Your task to perform on an android device: change notifications settings Image 0: 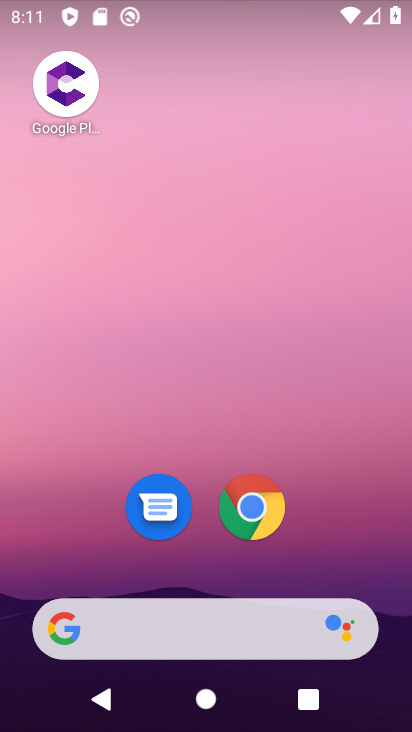
Step 0: drag from (241, 379) to (303, 38)
Your task to perform on an android device: change notifications settings Image 1: 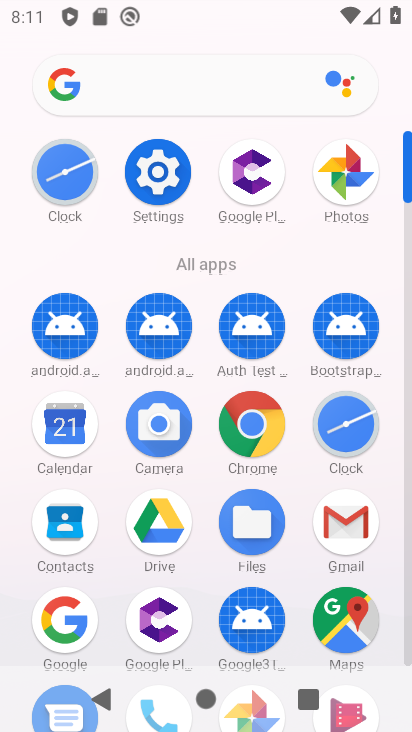
Step 1: click (164, 176)
Your task to perform on an android device: change notifications settings Image 2: 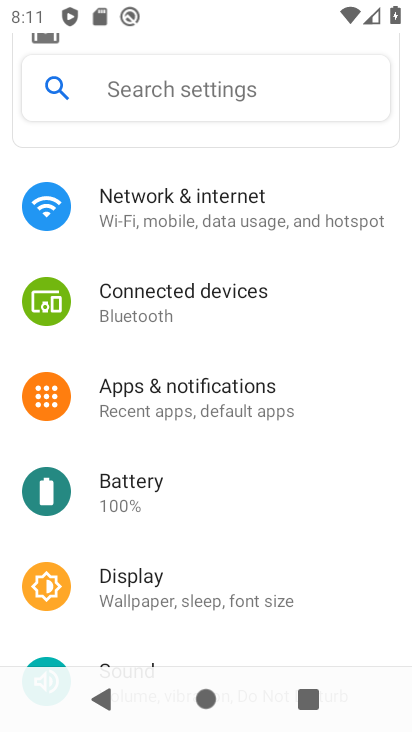
Step 2: click (202, 393)
Your task to perform on an android device: change notifications settings Image 3: 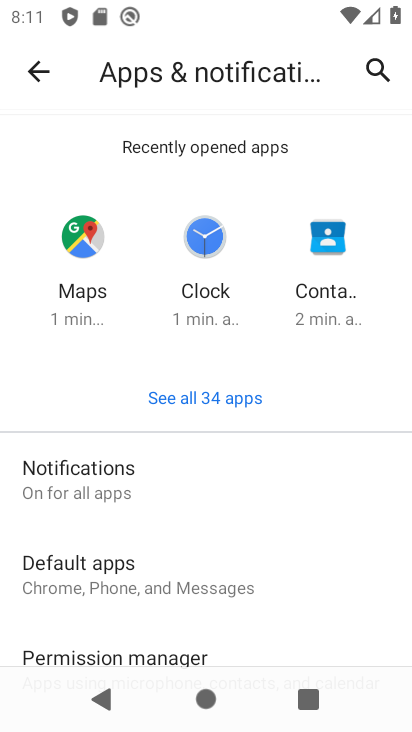
Step 3: drag from (178, 566) to (282, 174)
Your task to perform on an android device: change notifications settings Image 4: 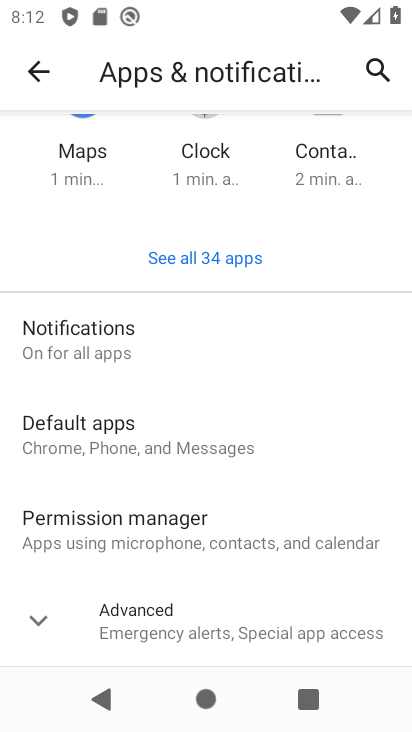
Step 4: click (174, 347)
Your task to perform on an android device: change notifications settings Image 5: 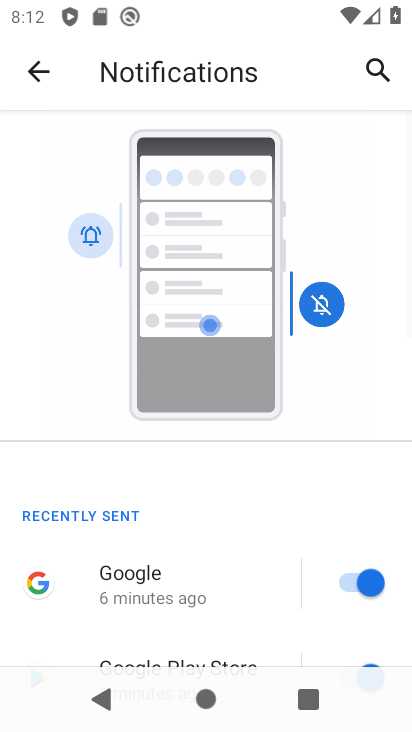
Step 5: drag from (210, 606) to (346, 57)
Your task to perform on an android device: change notifications settings Image 6: 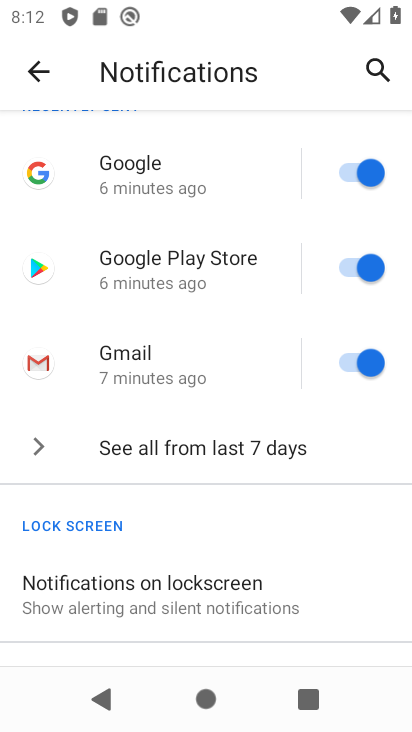
Step 6: drag from (197, 561) to (245, 273)
Your task to perform on an android device: change notifications settings Image 7: 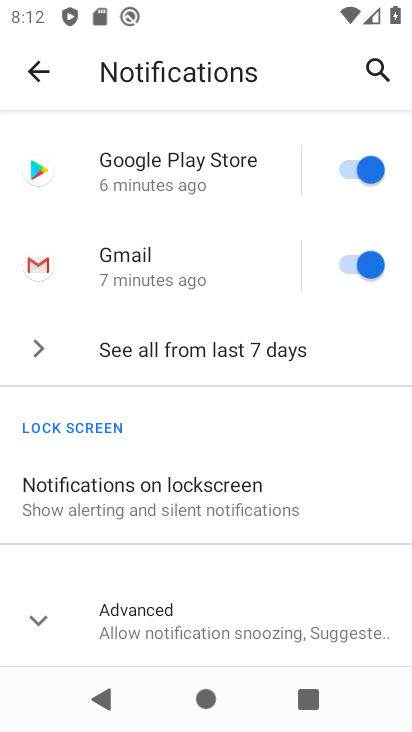
Step 7: click (153, 644)
Your task to perform on an android device: change notifications settings Image 8: 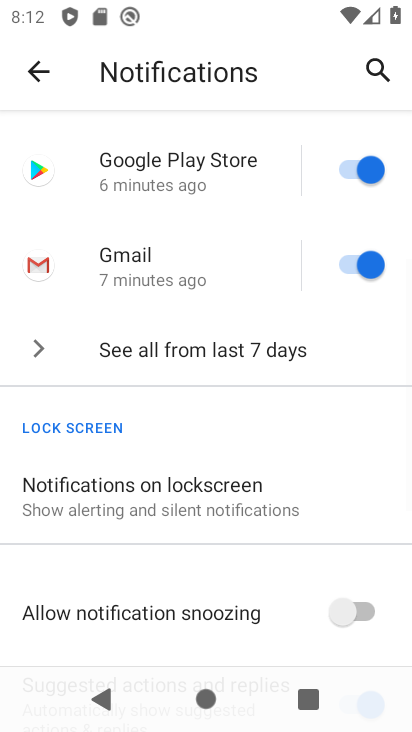
Step 8: click (350, 609)
Your task to perform on an android device: change notifications settings Image 9: 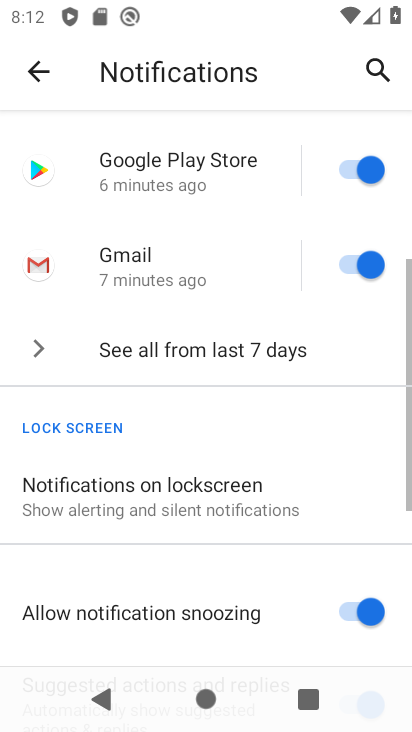
Step 9: task complete